Your task to perform on an android device: delete location history Image 0: 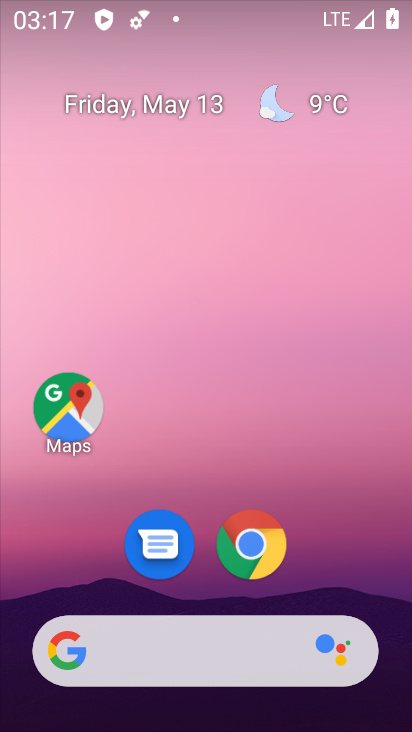
Step 0: drag from (306, 502) to (238, 103)
Your task to perform on an android device: delete location history Image 1: 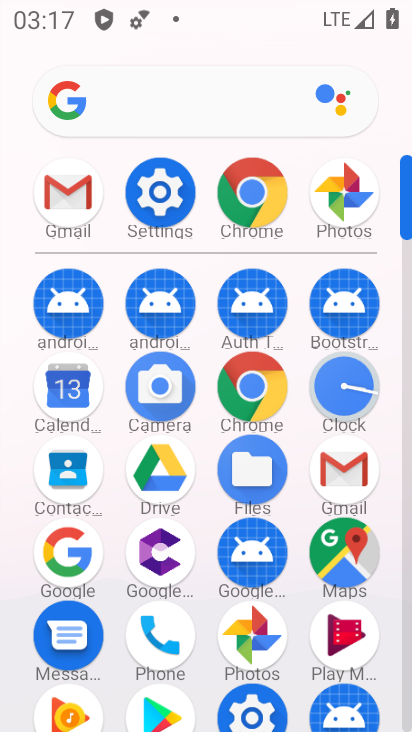
Step 1: drag from (3, 554) to (0, 271)
Your task to perform on an android device: delete location history Image 2: 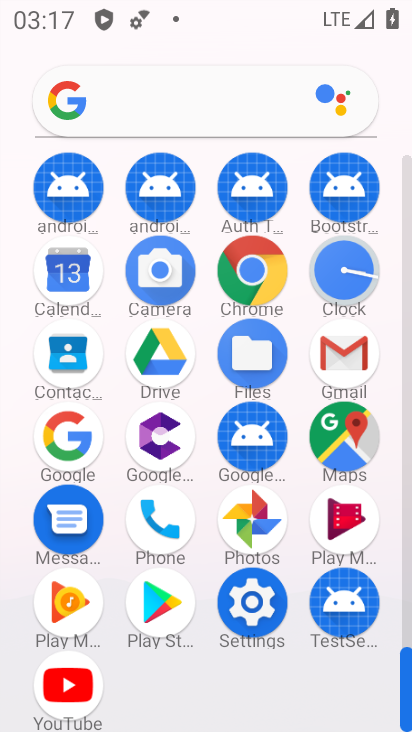
Step 2: click (251, 598)
Your task to perform on an android device: delete location history Image 3: 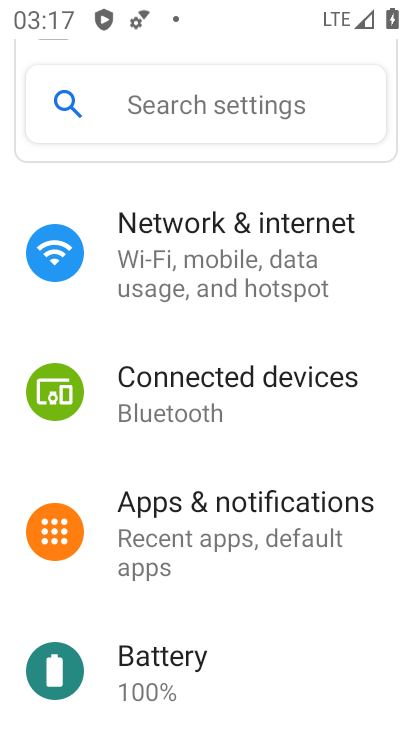
Step 3: drag from (294, 621) to (271, 244)
Your task to perform on an android device: delete location history Image 4: 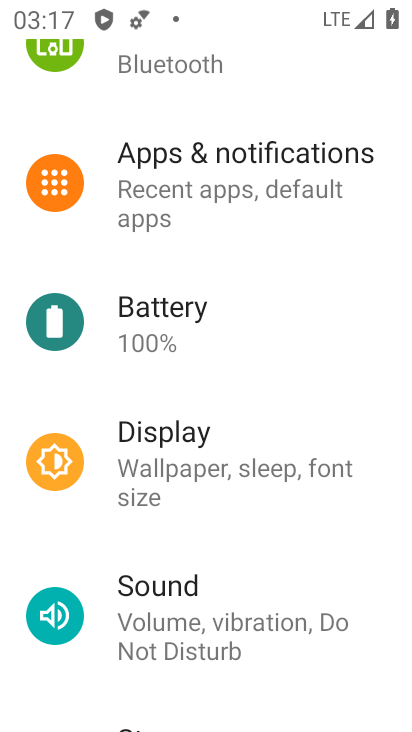
Step 4: drag from (256, 586) to (253, 205)
Your task to perform on an android device: delete location history Image 5: 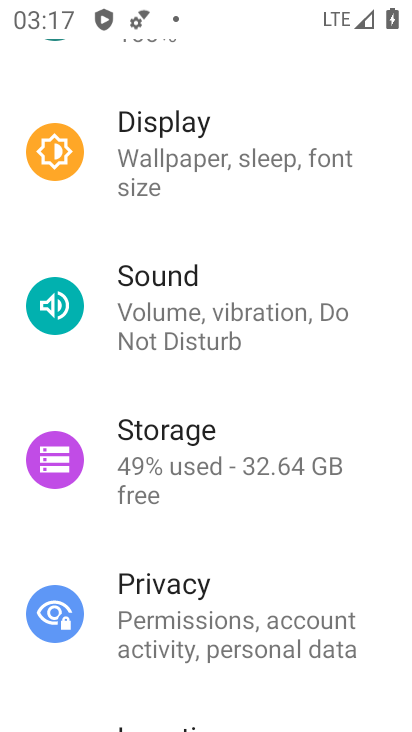
Step 5: drag from (242, 564) to (222, 130)
Your task to perform on an android device: delete location history Image 6: 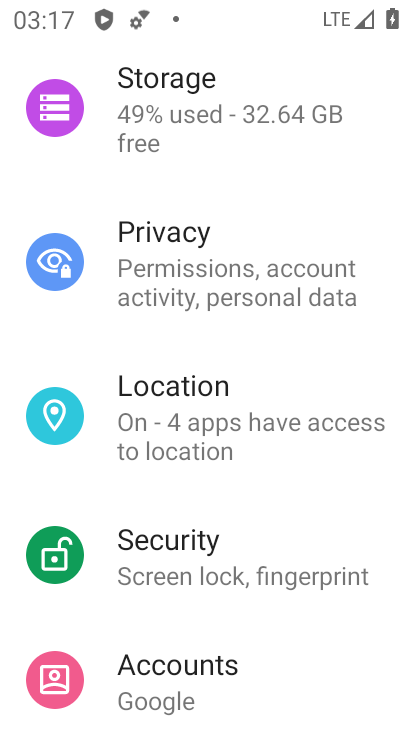
Step 6: drag from (226, 583) to (221, 262)
Your task to perform on an android device: delete location history Image 7: 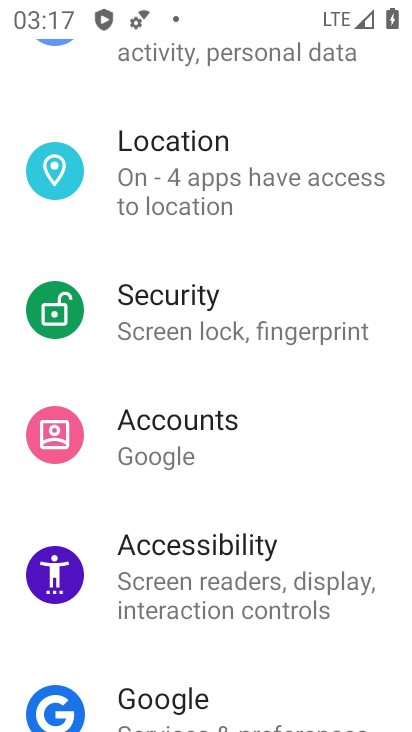
Step 7: click (214, 146)
Your task to perform on an android device: delete location history Image 8: 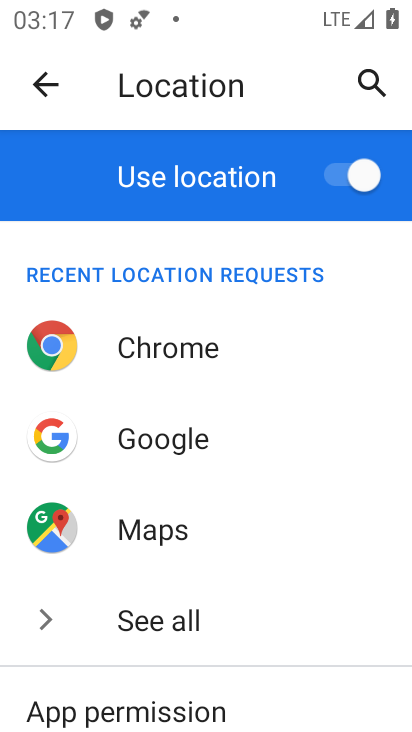
Step 8: drag from (239, 555) to (243, 216)
Your task to perform on an android device: delete location history Image 9: 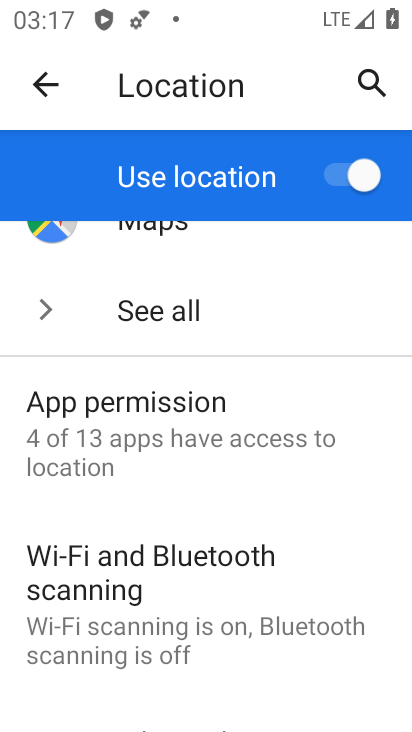
Step 9: click (180, 560)
Your task to perform on an android device: delete location history Image 10: 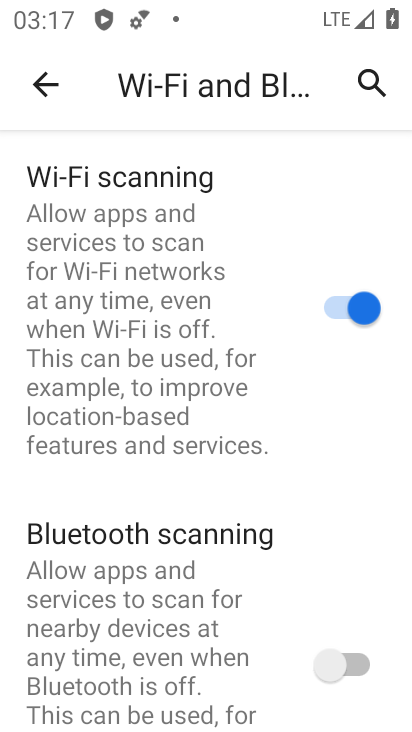
Step 10: click (48, 79)
Your task to perform on an android device: delete location history Image 11: 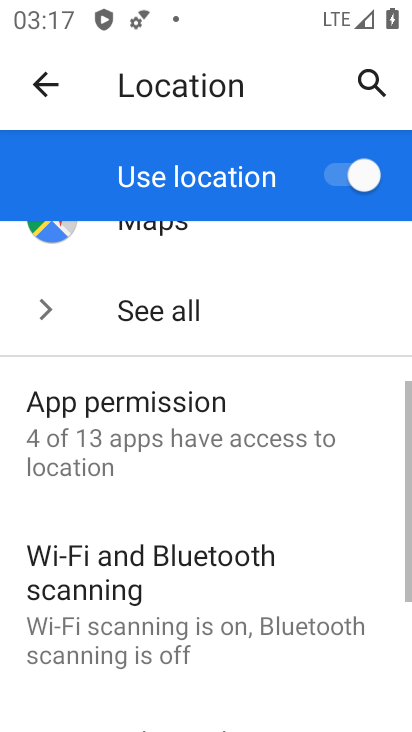
Step 11: click (162, 443)
Your task to perform on an android device: delete location history Image 12: 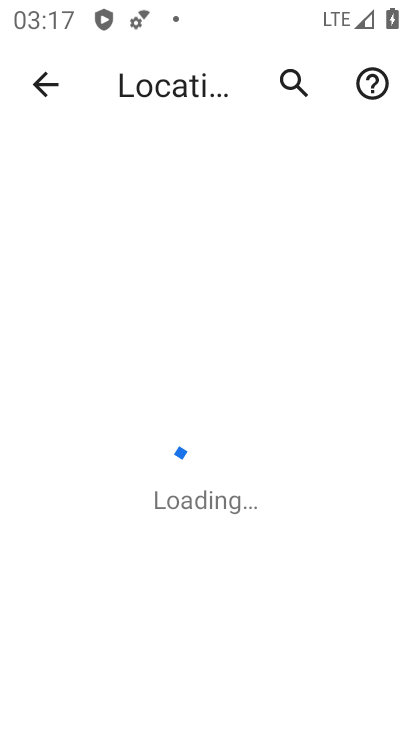
Step 12: click (54, 79)
Your task to perform on an android device: delete location history Image 13: 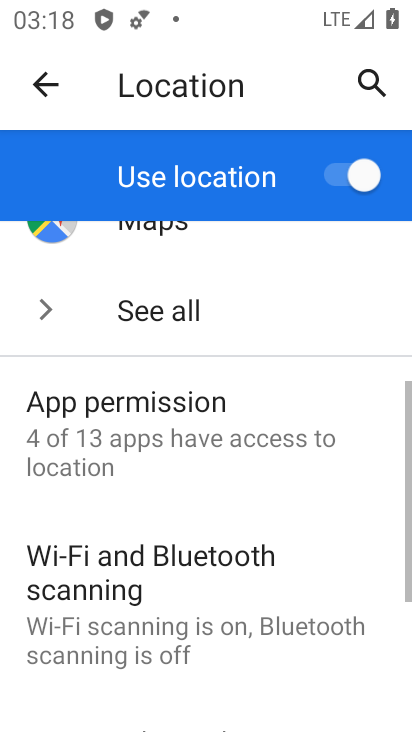
Step 13: drag from (268, 328) to (264, 616)
Your task to perform on an android device: delete location history Image 14: 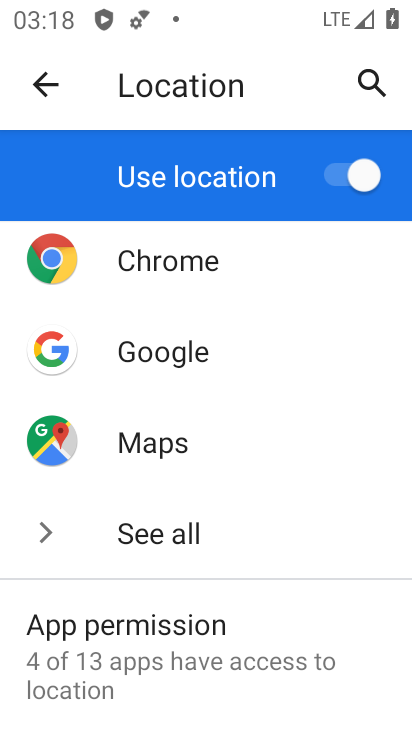
Step 14: drag from (274, 343) to (261, 652)
Your task to perform on an android device: delete location history Image 15: 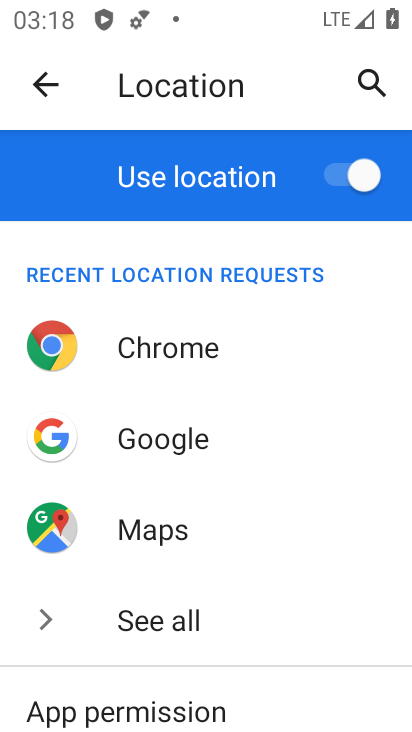
Step 15: drag from (253, 555) to (231, 227)
Your task to perform on an android device: delete location history Image 16: 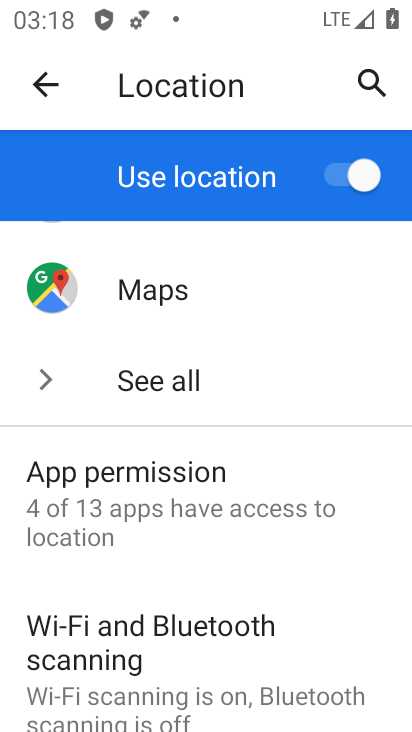
Step 16: drag from (210, 668) to (248, 265)
Your task to perform on an android device: delete location history Image 17: 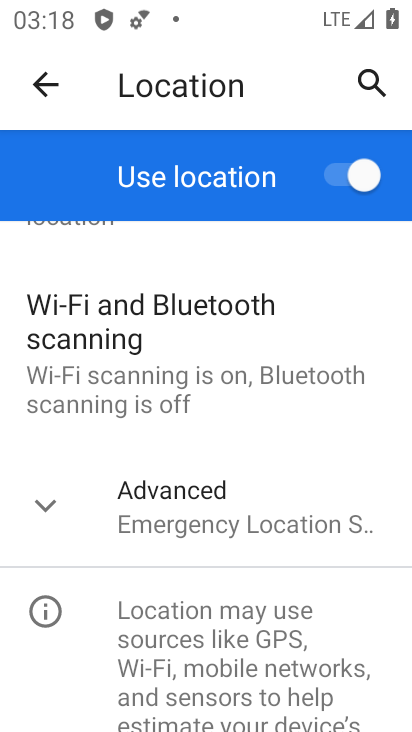
Step 17: click (185, 517)
Your task to perform on an android device: delete location history Image 18: 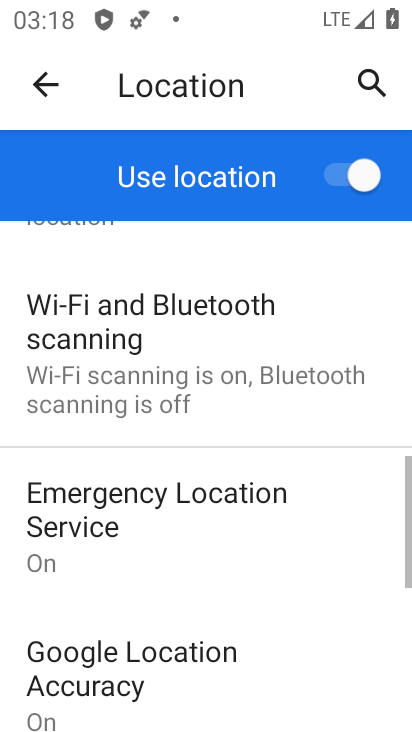
Step 18: drag from (238, 606) to (227, 307)
Your task to perform on an android device: delete location history Image 19: 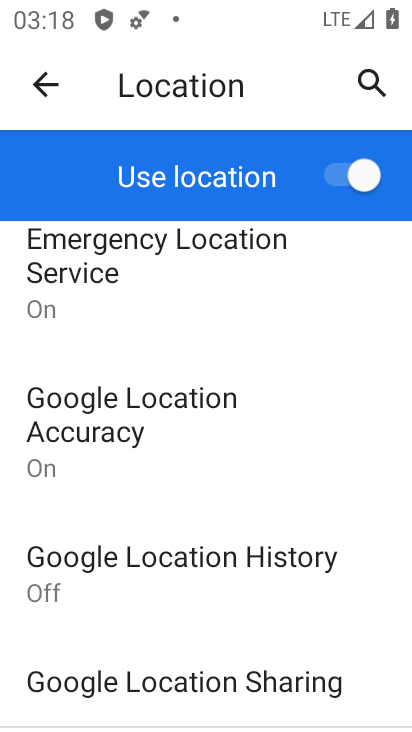
Step 19: click (117, 563)
Your task to perform on an android device: delete location history Image 20: 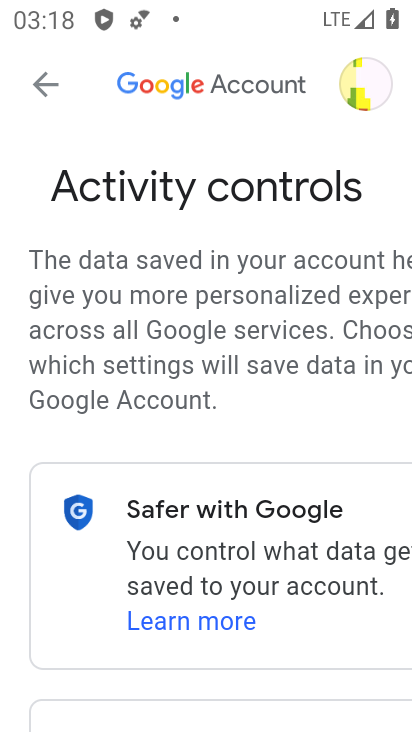
Step 20: drag from (257, 585) to (176, 99)
Your task to perform on an android device: delete location history Image 21: 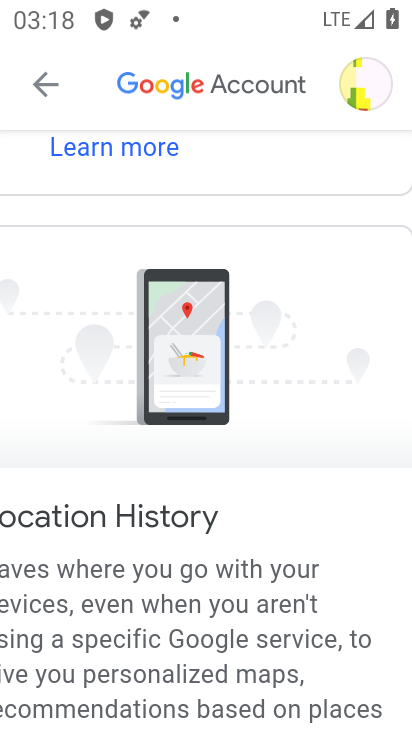
Step 21: drag from (245, 598) to (227, 162)
Your task to perform on an android device: delete location history Image 22: 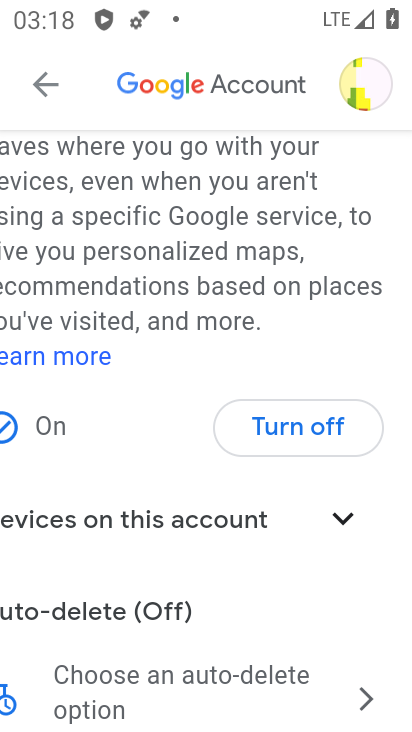
Step 22: drag from (112, 586) to (178, 169)
Your task to perform on an android device: delete location history Image 23: 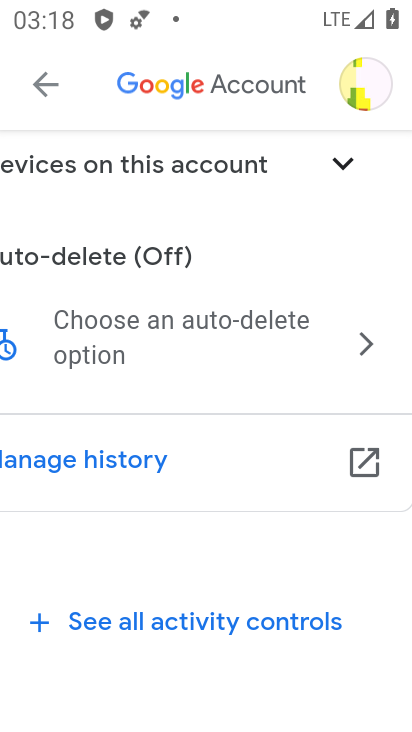
Step 23: drag from (71, 554) to (257, 286)
Your task to perform on an android device: delete location history Image 24: 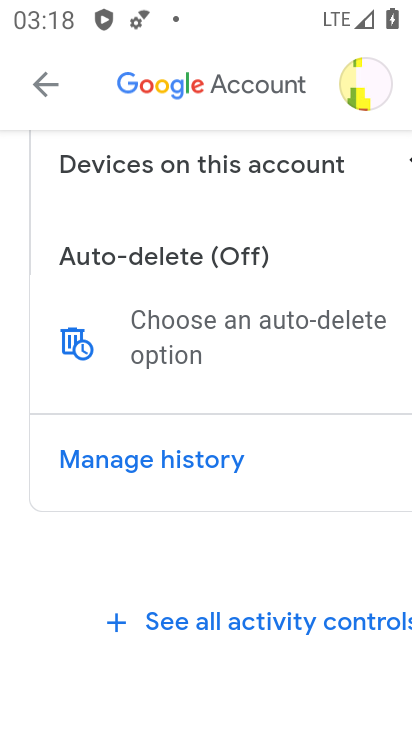
Step 24: click (78, 330)
Your task to perform on an android device: delete location history Image 25: 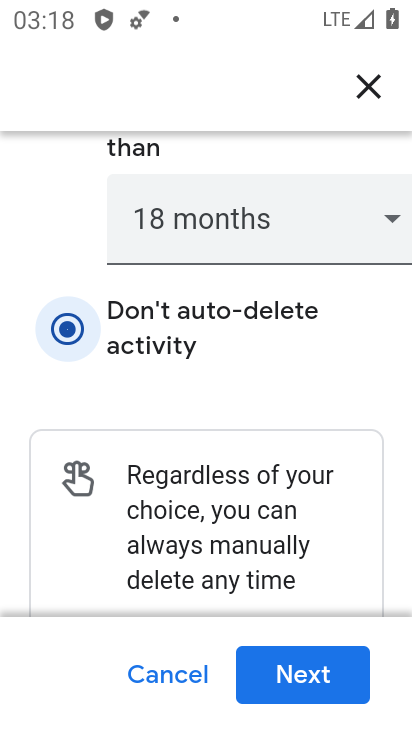
Step 25: click (289, 675)
Your task to perform on an android device: delete location history Image 26: 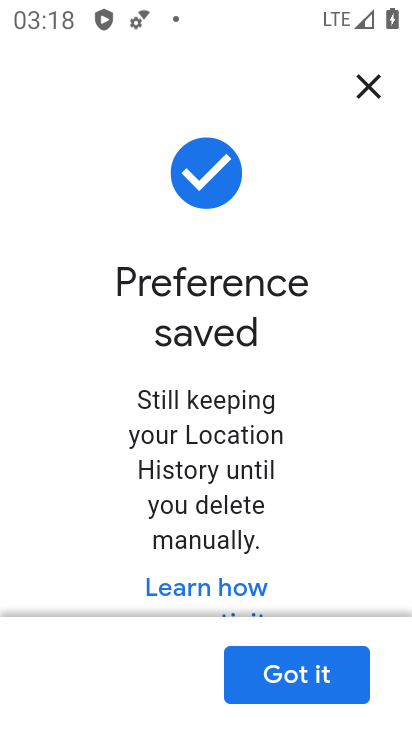
Step 26: task complete